Your task to perform on an android device: Open Youtube and go to "Your channel" Image 0: 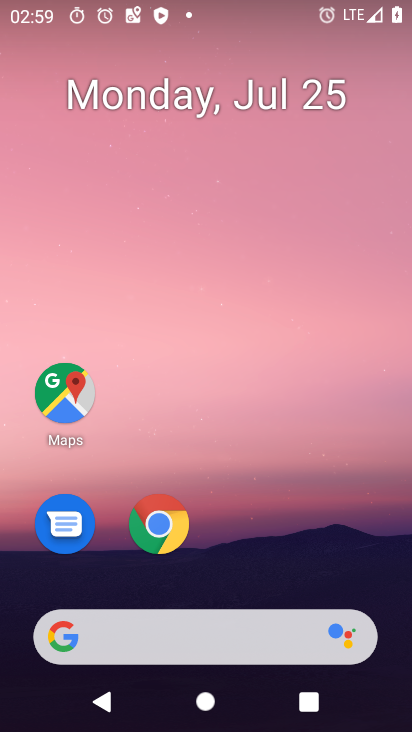
Step 0: press home button
Your task to perform on an android device: Open Youtube and go to "Your channel" Image 1: 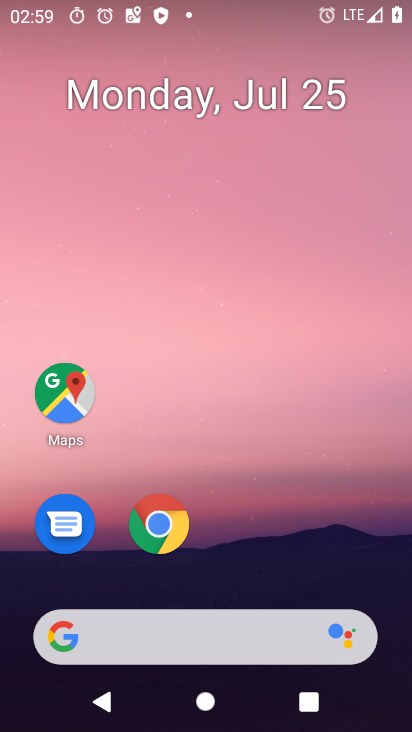
Step 1: drag from (219, 569) to (224, 30)
Your task to perform on an android device: Open Youtube and go to "Your channel" Image 2: 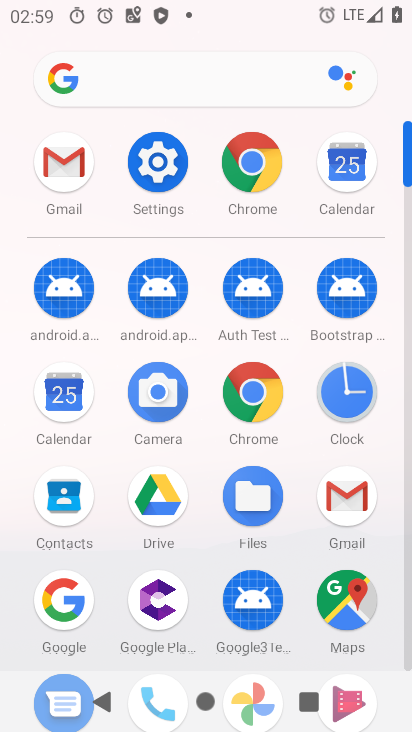
Step 2: drag from (297, 542) to (290, 92)
Your task to perform on an android device: Open Youtube and go to "Your channel" Image 3: 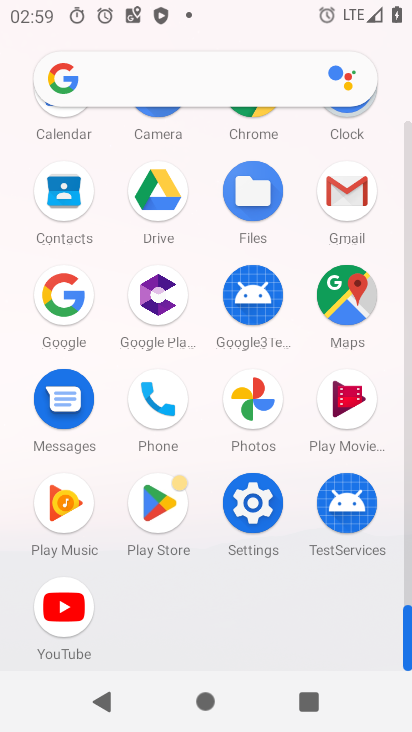
Step 3: click (66, 610)
Your task to perform on an android device: Open Youtube and go to "Your channel" Image 4: 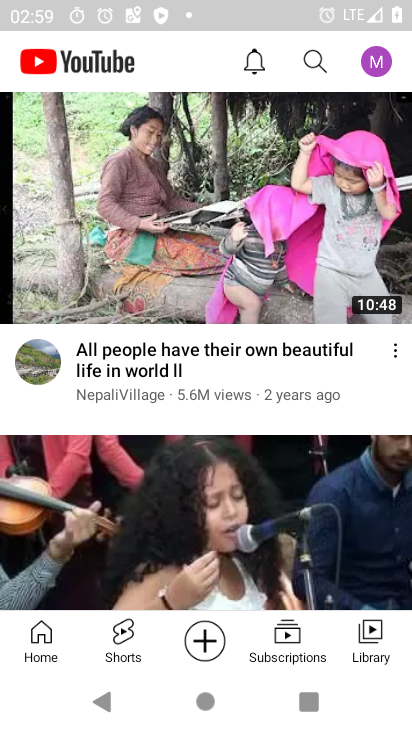
Step 4: click (375, 63)
Your task to perform on an android device: Open Youtube and go to "Your channel" Image 5: 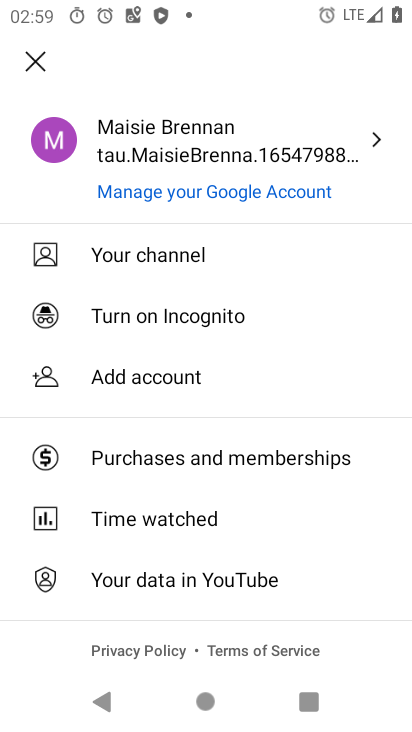
Step 5: click (150, 249)
Your task to perform on an android device: Open Youtube and go to "Your channel" Image 6: 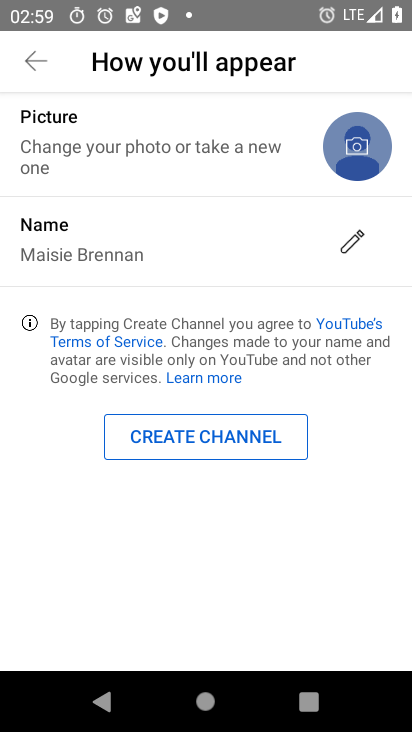
Step 6: task complete